Your task to perform on an android device: open app "Google Drive" Image 0: 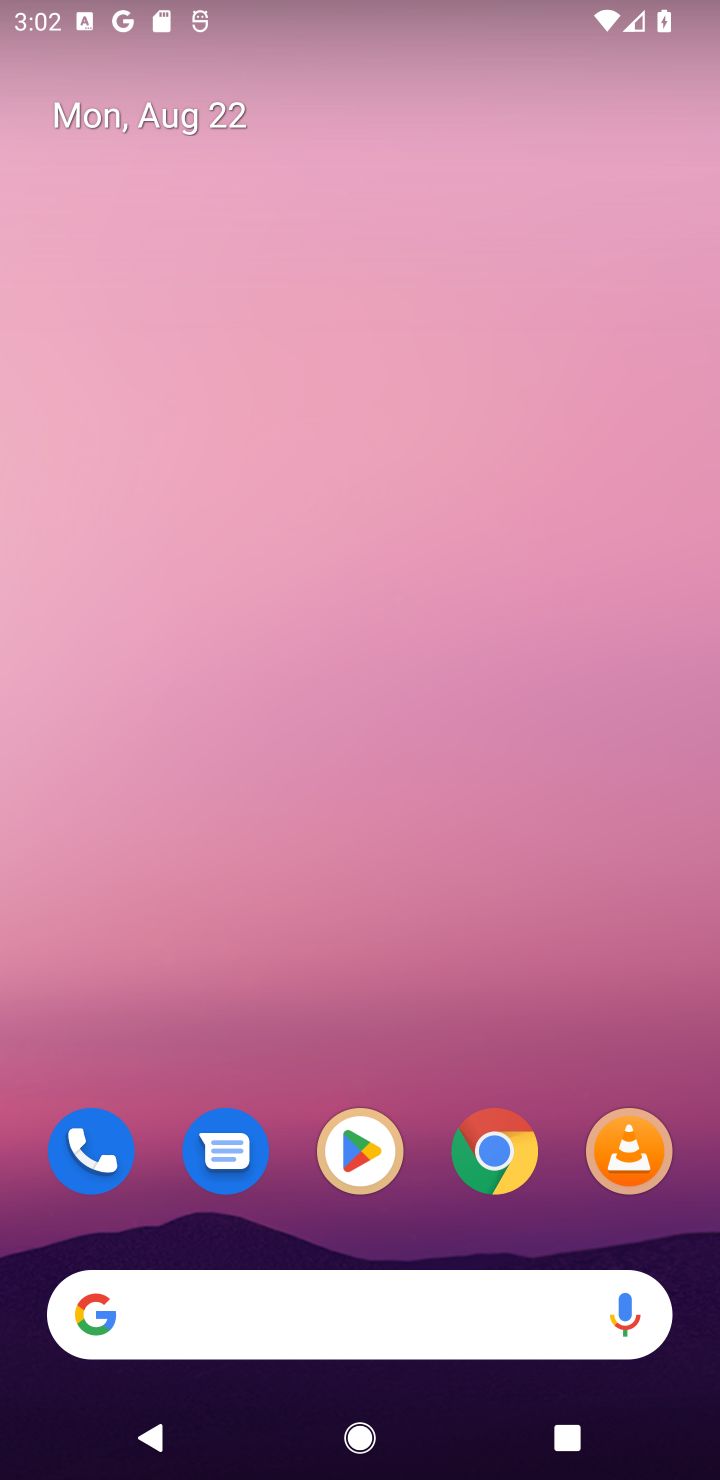
Step 0: drag from (304, 1308) to (451, 140)
Your task to perform on an android device: open app "Google Drive" Image 1: 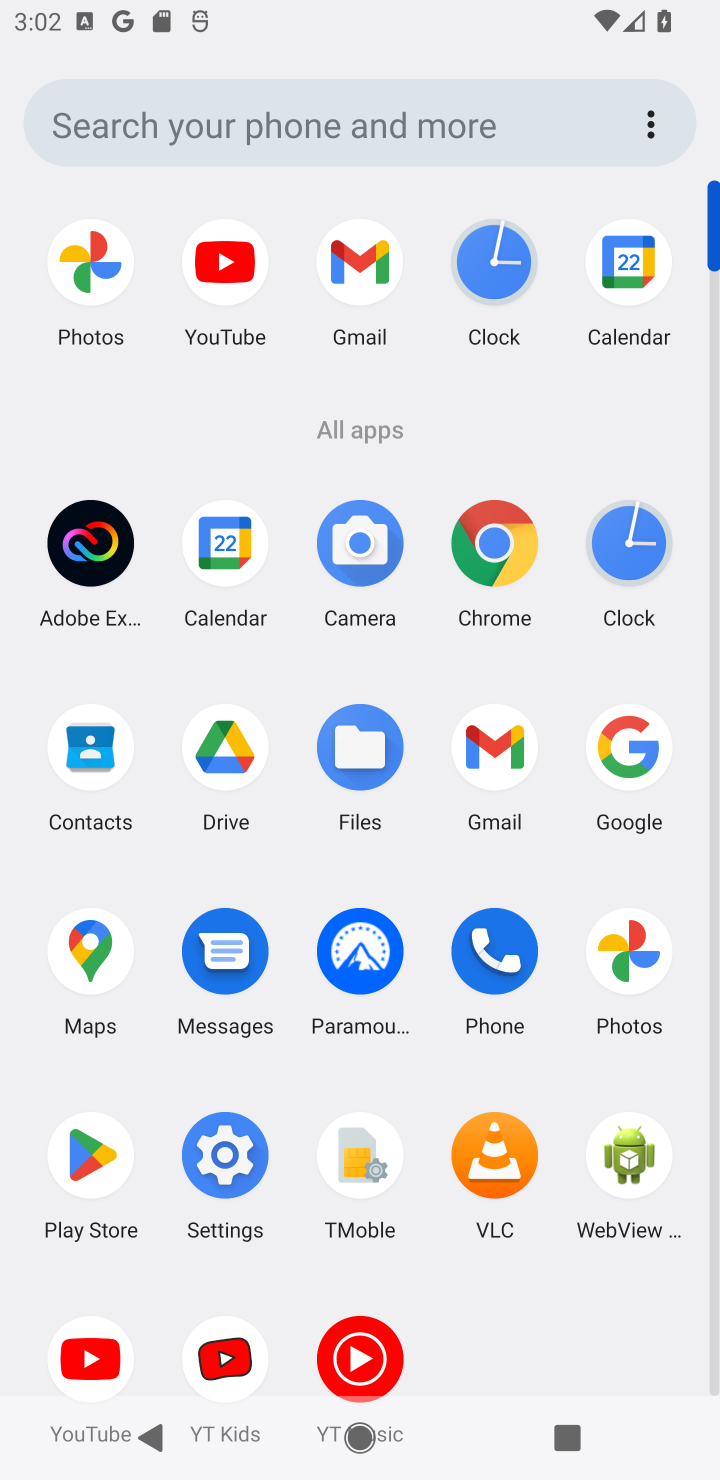
Step 1: click (82, 1148)
Your task to perform on an android device: open app "Google Drive" Image 2: 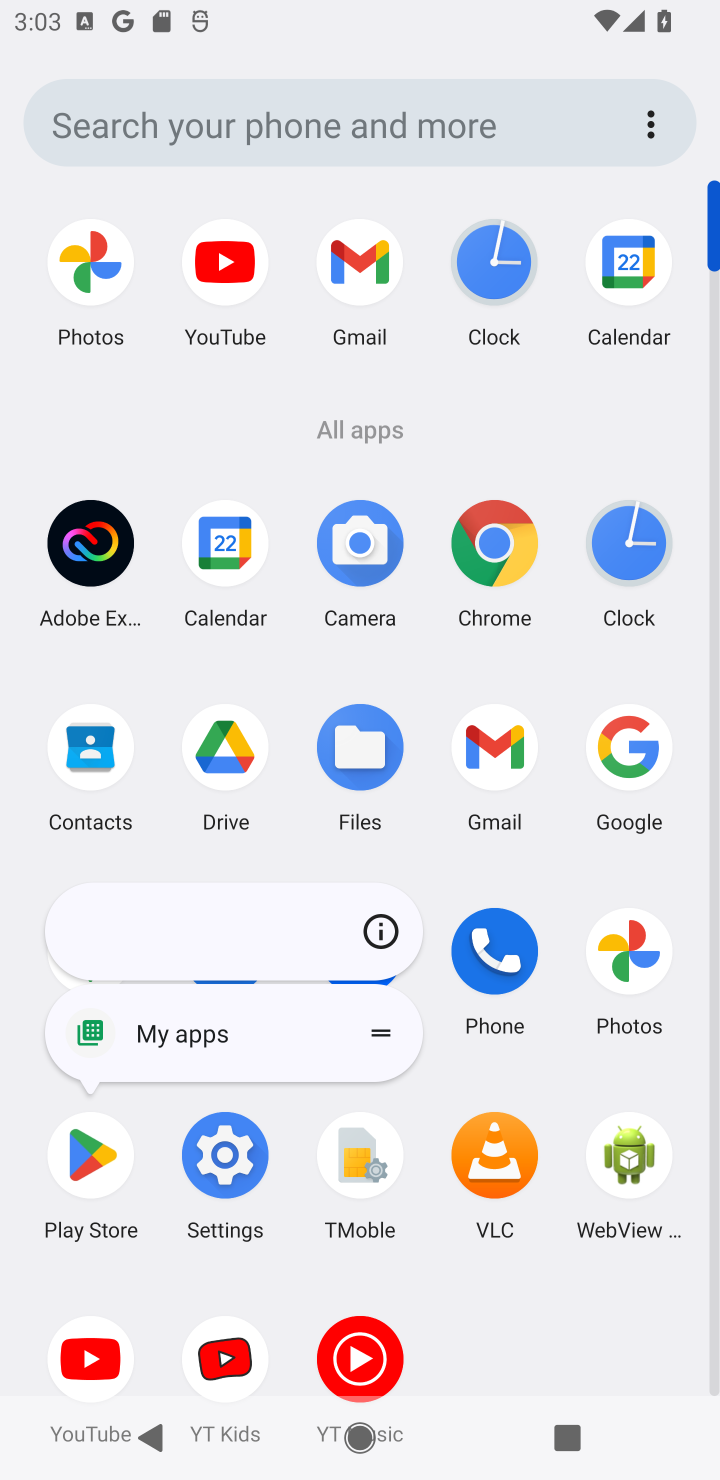
Step 2: click (82, 1152)
Your task to perform on an android device: open app "Google Drive" Image 3: 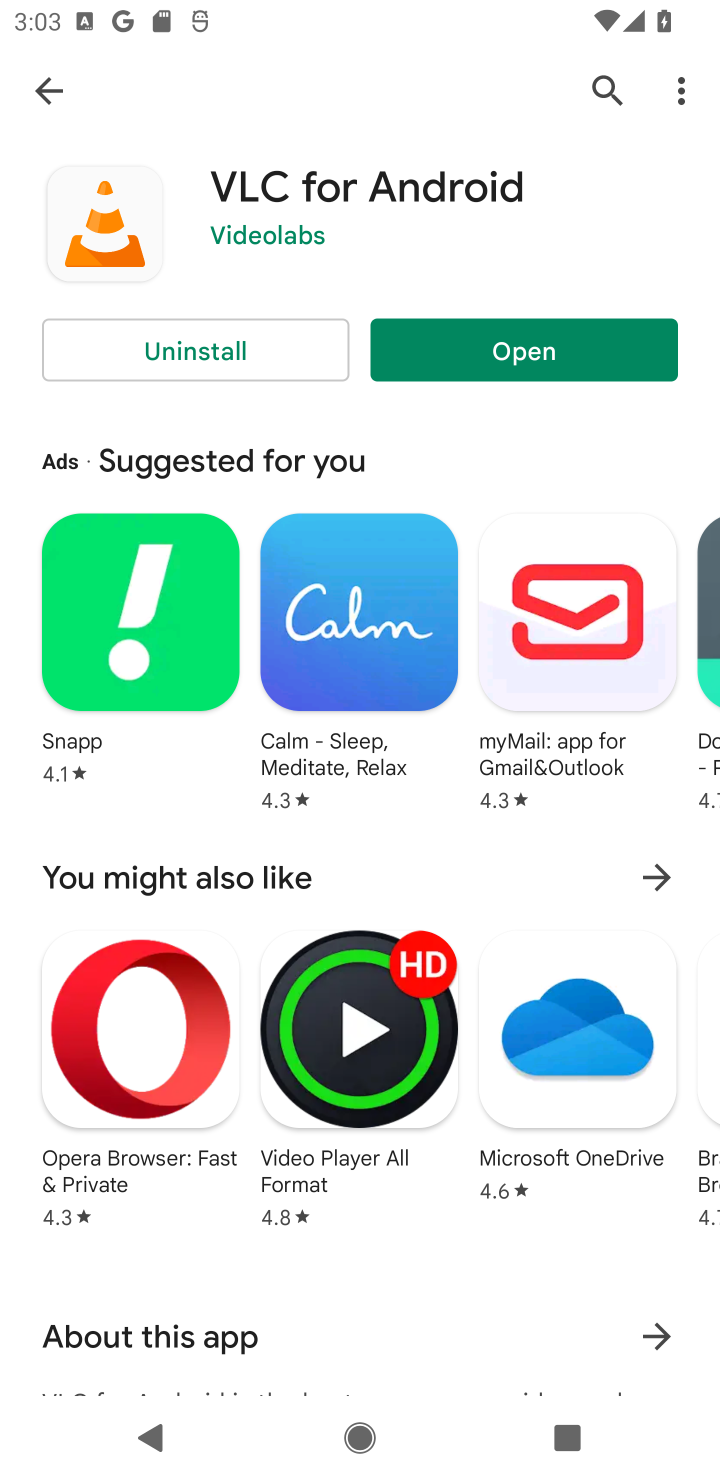
Step 3: click (610, 77)
Your task to perform on an android device: open app "Google Drive" Image 4: 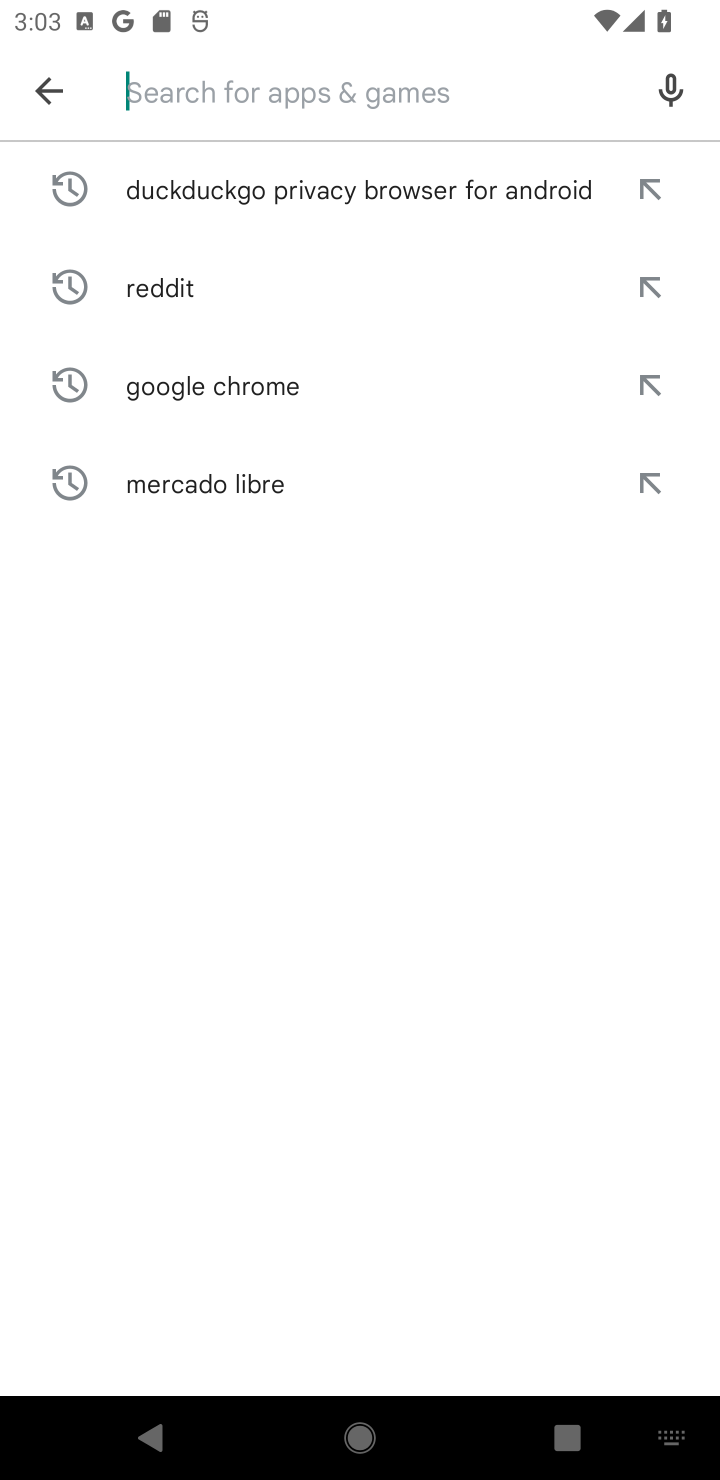
Step 4: type "Google Drive"
Your task to perform on an android device: open app "Google Drive" Image 5: 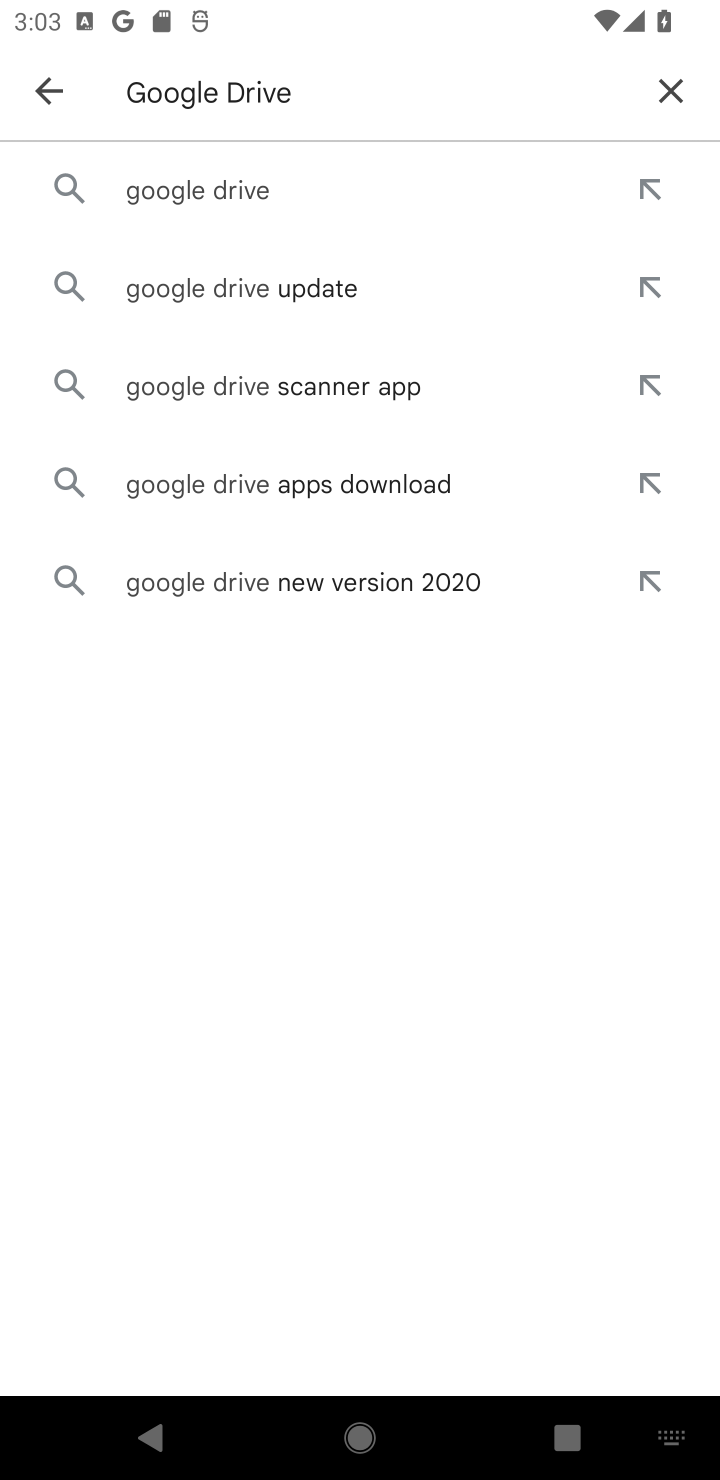
Step 5: click (185, 184)
Your task to perform on an android device: open app "Google Drive" Image 6: 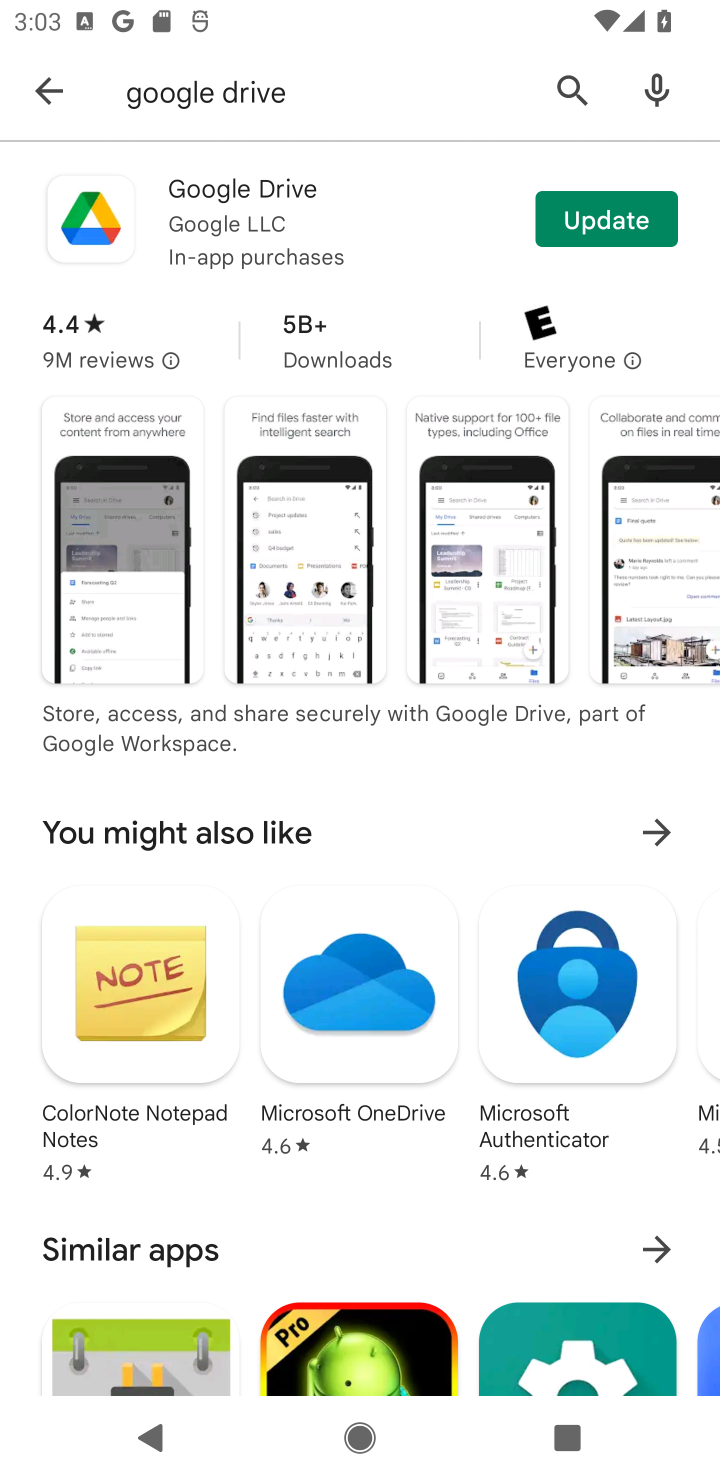
Step 6: click (240, 225)
Your task to perform on an android device: open app "Google Drive" Image 7: 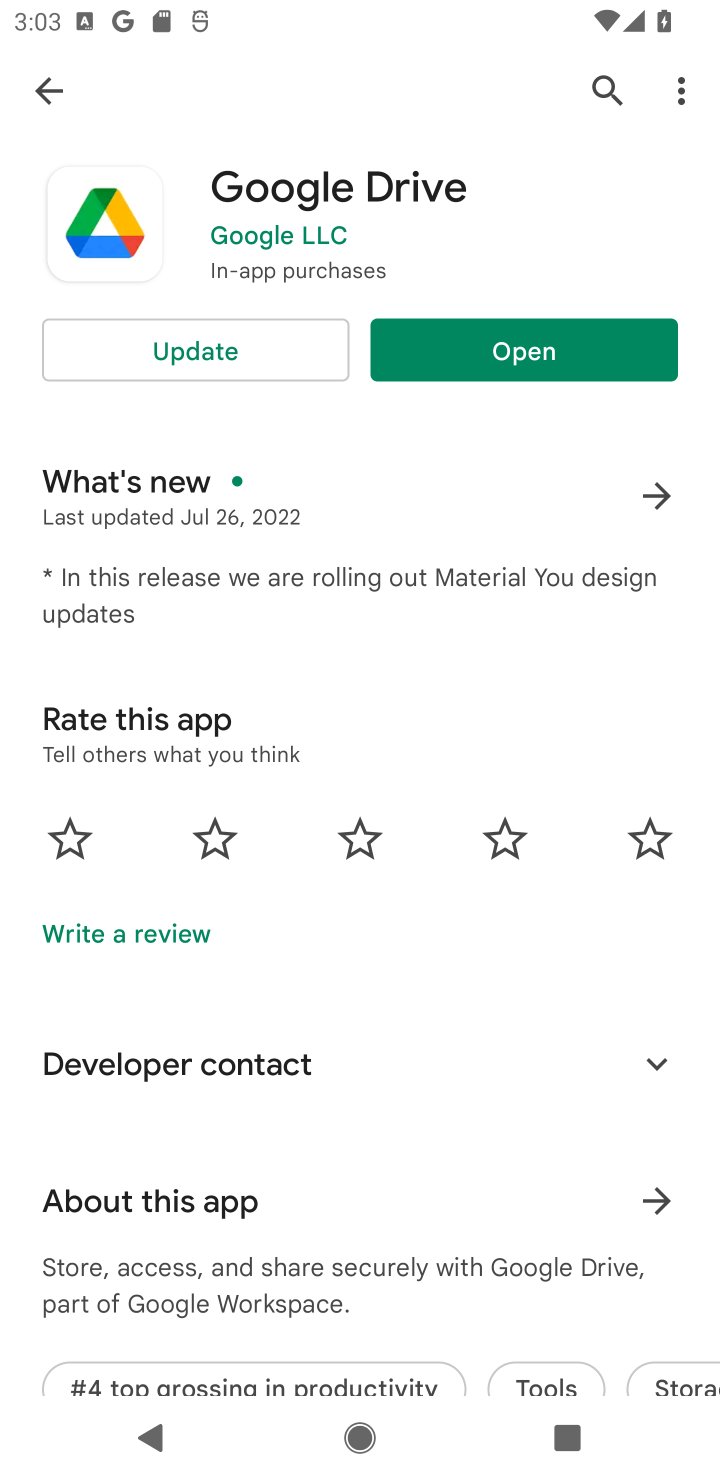
Step 7: click (560, 360)
Your task to perform on an android device: open app "Google Drive" Image 8: 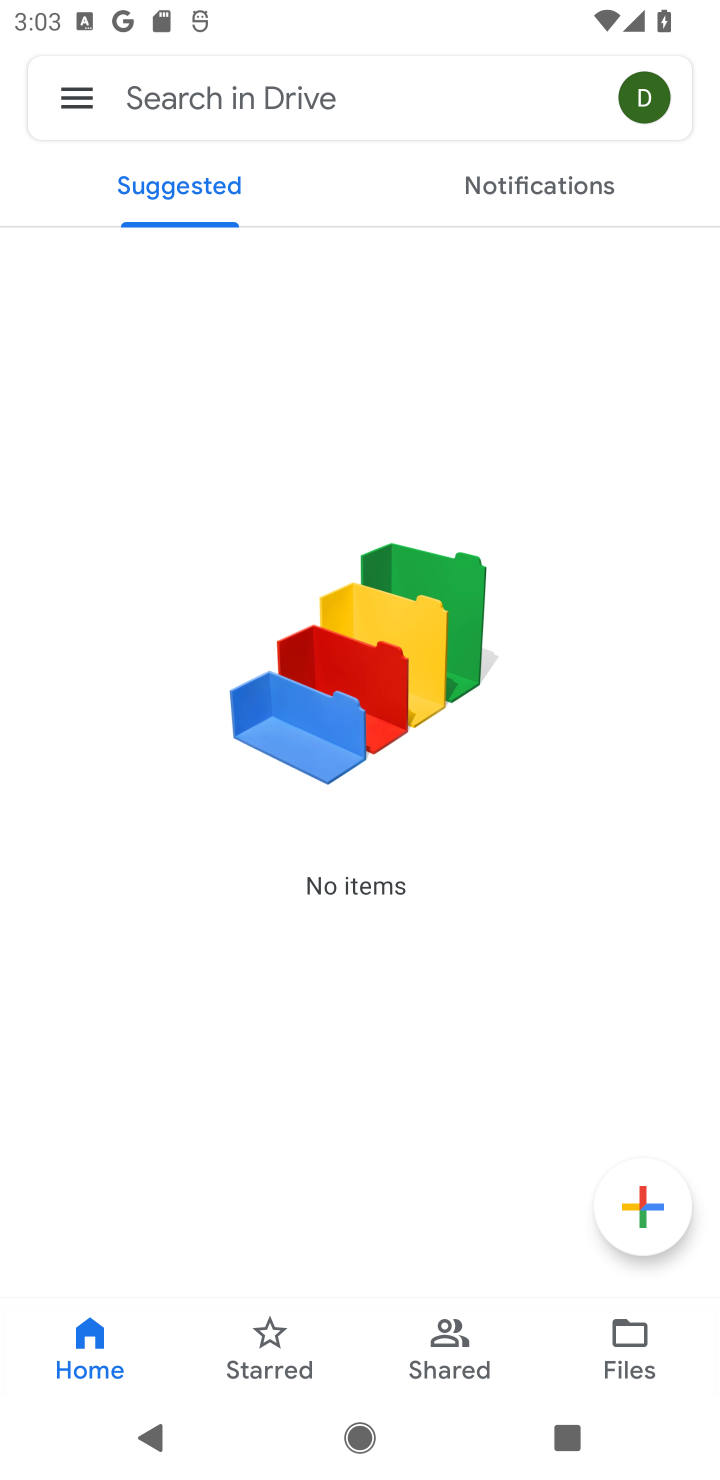
Step 8: task complete